Your task to perform on an android device: open a bookmark in the chrome app Image 0: 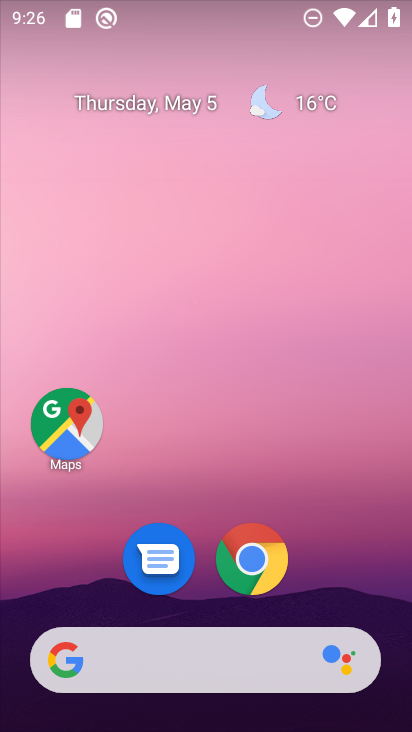
Step 0: click (260, 570)
Your task to perform on an android device: open a bookmark in the chrome app Image 1: 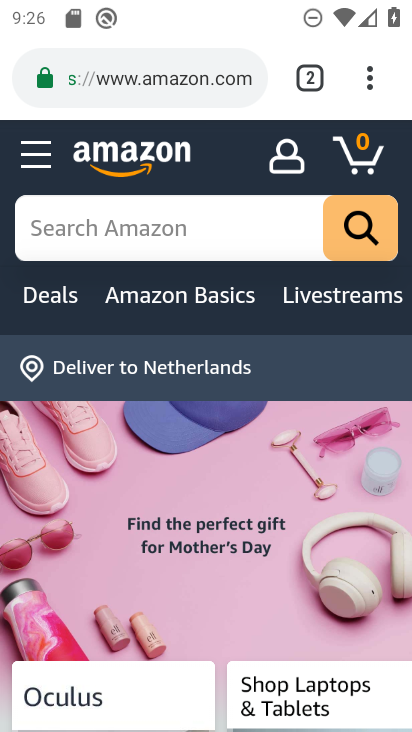
Step 1: drag from (369, 80) to (109, 307)
Your task to perform on an android device: open a bookmark in the chrome app Image 2: 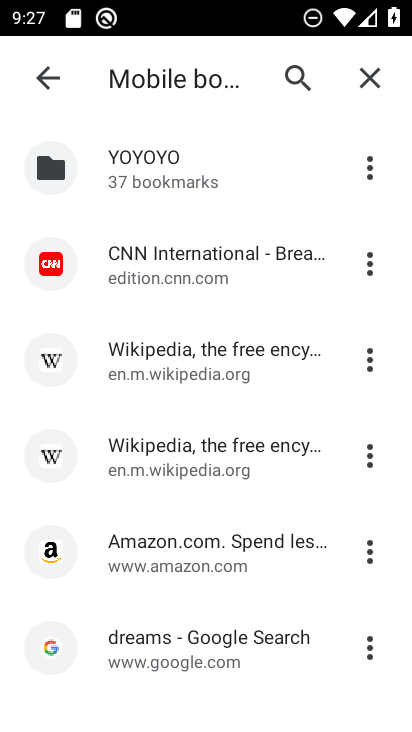
Step 2: click (132, 359)
Your task to perform on an android device: open a bookmark in the chrome app Image 3: 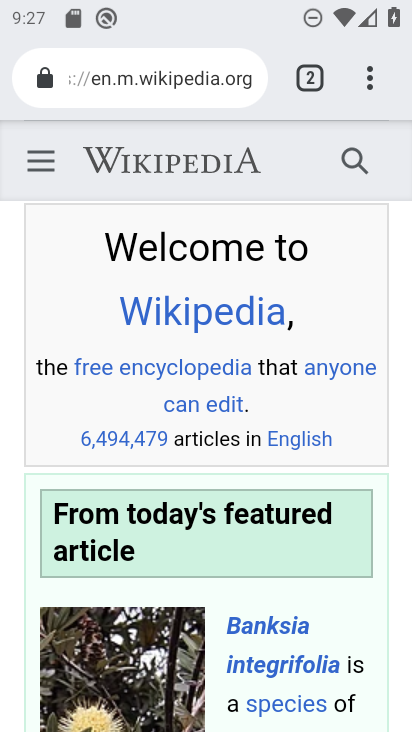
Step 3: task complete